Your task to perform on an android device: What's the weather? Image 0: 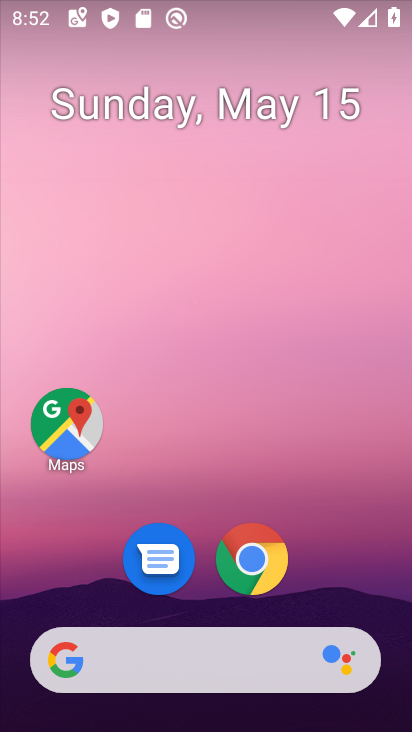
Step 0: click (192, 669)
Your task to perform on an android device: What's the weather? Image 1: 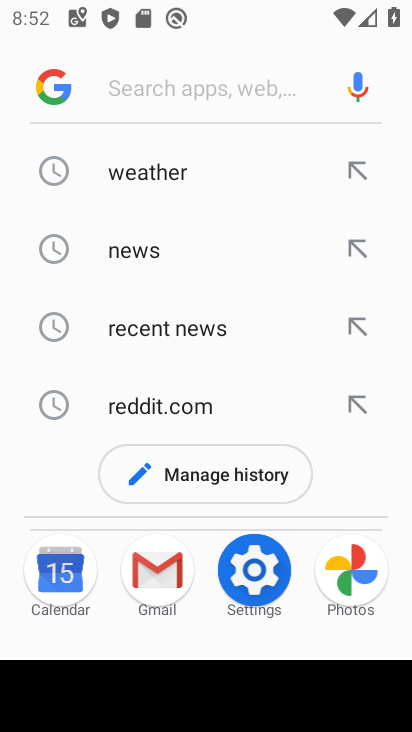
Step 1: click (168, 188)
Your task to perform on an android device: What's the weather? Image 2: 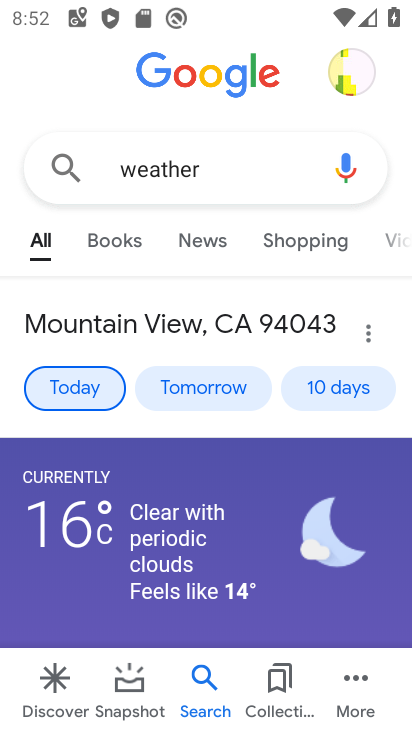
Step 2: task complete